Your task to perform on an android device: Search for Italian restaurants on Maps Image 0: 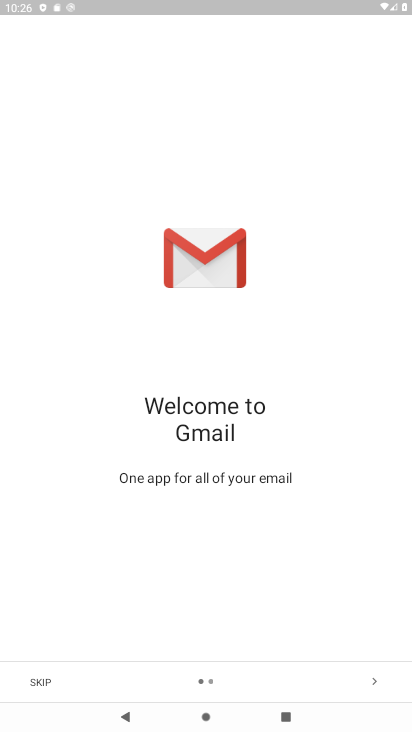
Step 0: press home button
Your task to perform on an android device: Search for Italian restaurants on Maps Image 1: 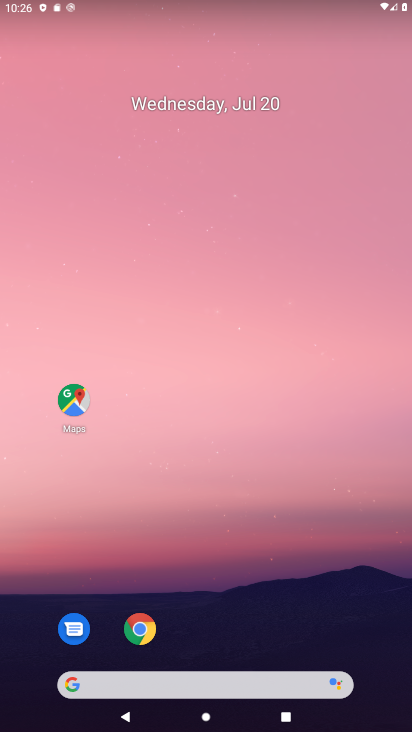
Step 1: click (74, 404)
Your task to perform on an android device: Search for Italian restaurants on Maps Image 2: 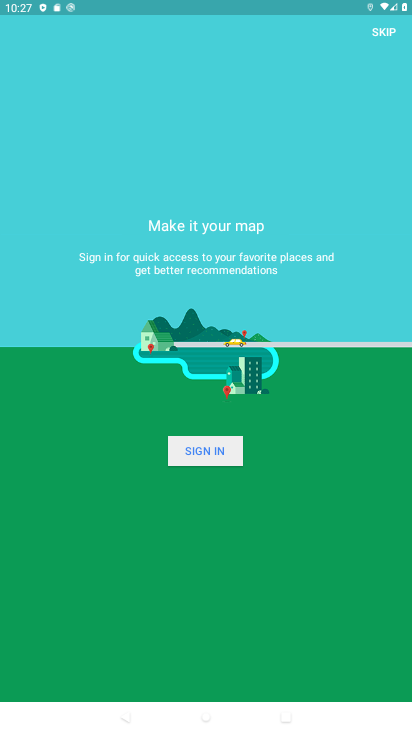
Step 2: click (389, 28)
Your task to perform on an android device: Search for Italian restaurants on Maps Image 3: 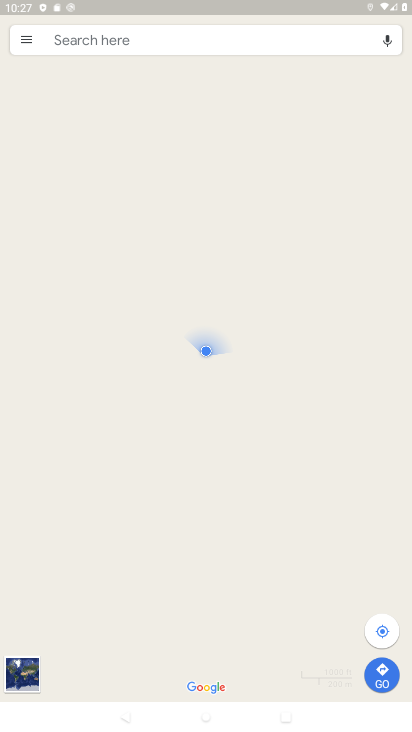
Step 3: click (291, 49)
Your task to perform on an android device: Search for Italian restaurants on Maps Image 4: 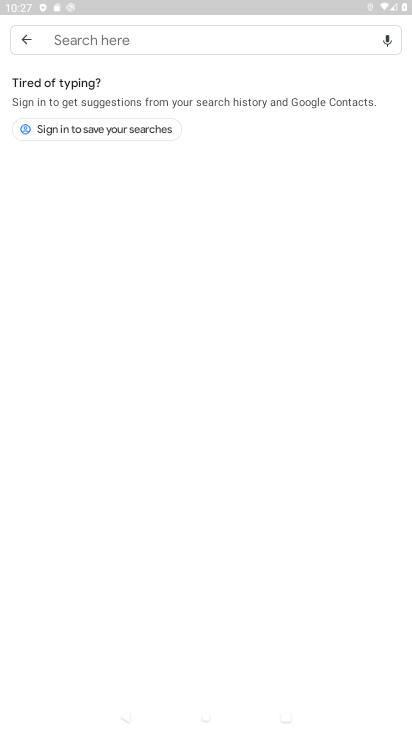
Step 4: click (264, 43)
Your task to perform on an android device: Search for Italian restaurants on Maps Image 5: 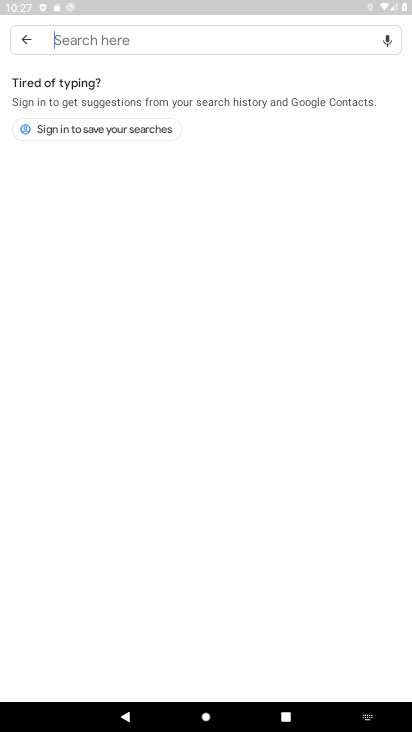
Step 5: type "italian restaurants"
Your task to perform on an android device: Search for Italian restaurants on Maps Image 6: 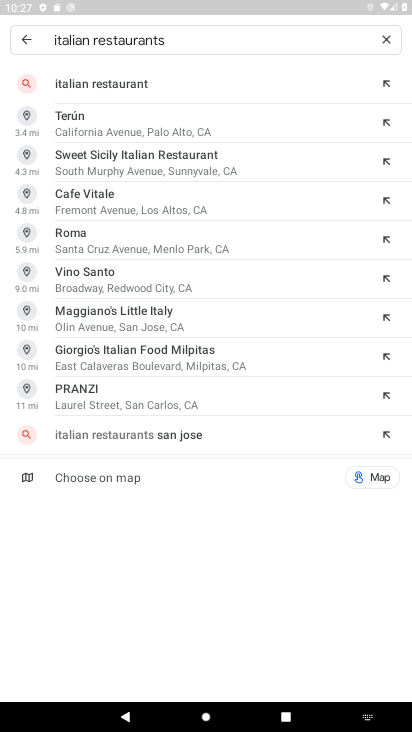
Step 6: click (82, 82)
Your task to perform on an android device: Search for Italian restaurants on Maps Image 7: 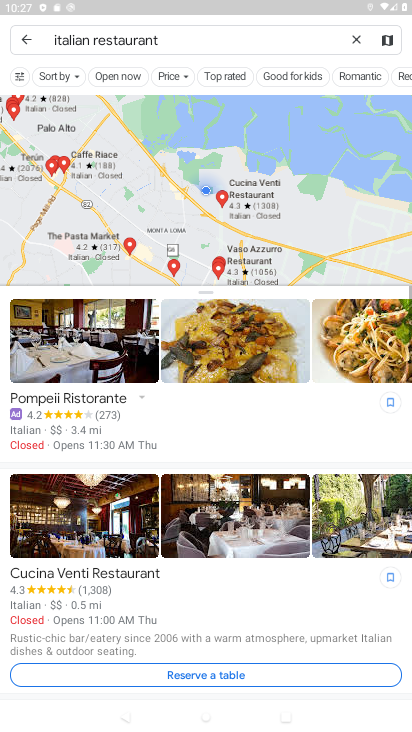
Step 7: task complete